Your task to perform on an android device: open chrome and create a bookmark for the current page Image 0: 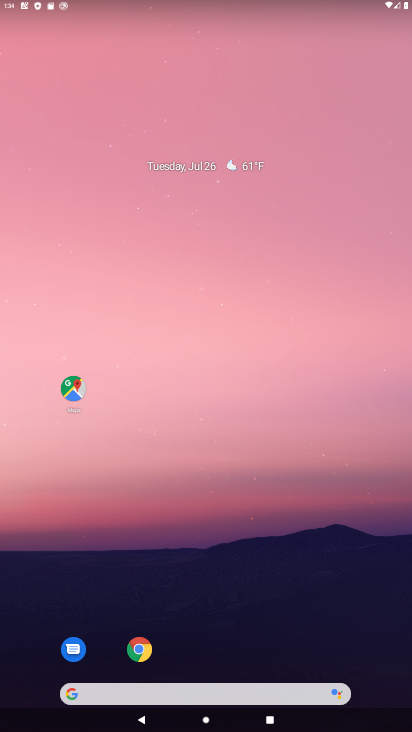
Step 0: press home button
Your task to perform on an android device: open chrome and create a bookmark for the current page Image 1: 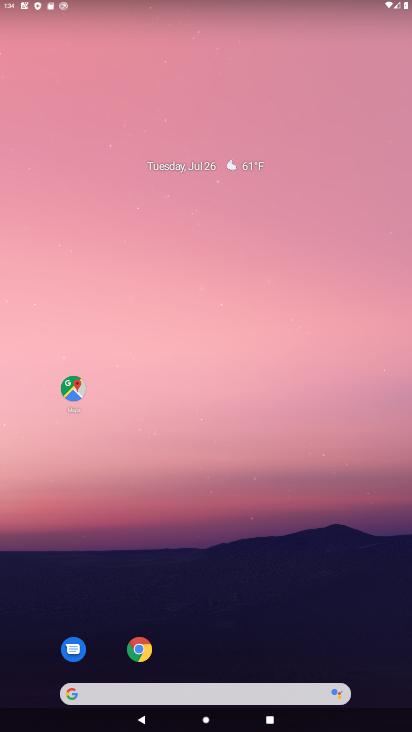
Step 1: click (138, 648)
Your task to perform on an android device: open chrome and create a bookmark for the current page Image 2: 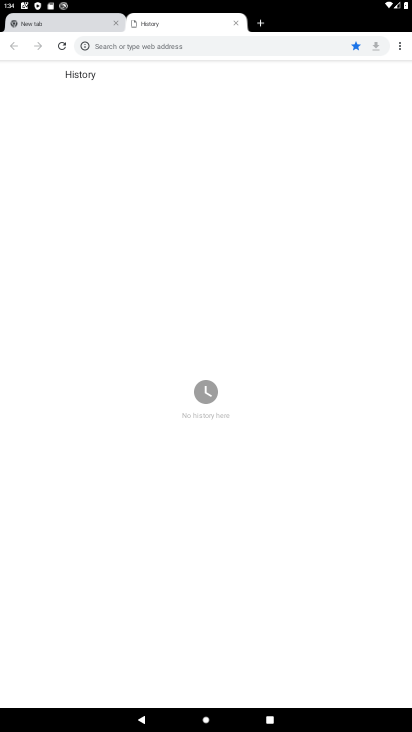
Step 2: click (44, 19)
Your task to perform on an android device: open chrome and create a bookmark for the current page Image 3: 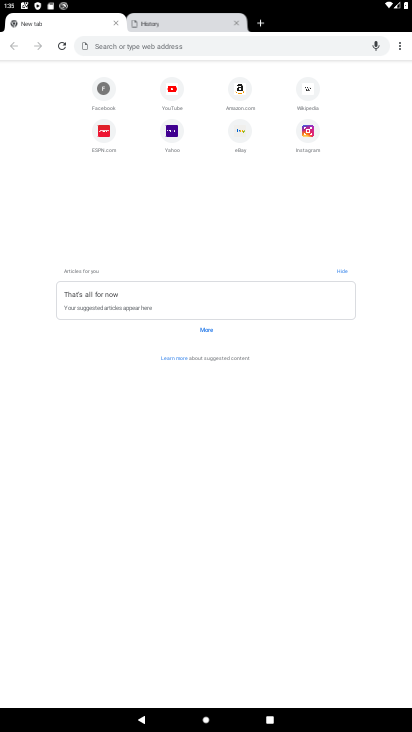
Step 3: click (173, 14)
Your task to perform on an android device: open chrome and create a bookmark for the current page Image 4: 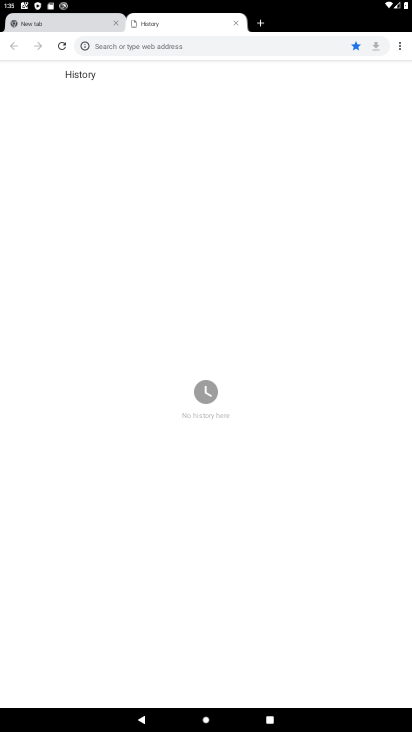
Step 4: task complete